Your task to perform on an android device: add a label to a message in the gmail app Image 0: 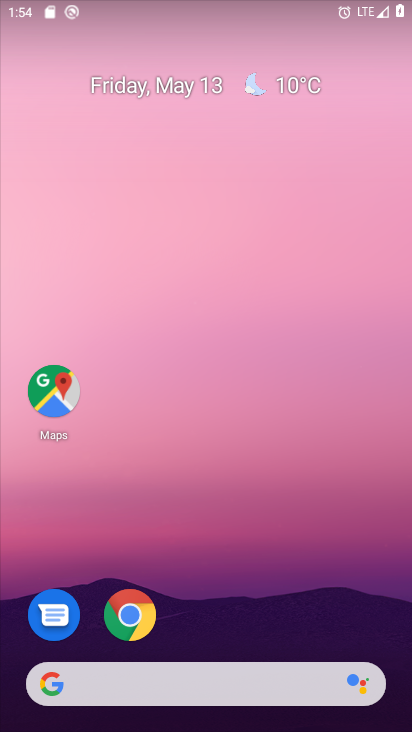
Step 0: drag from (222, 573) to (252, 85)
Your task to perform on an android device: add a label to a message in the gmail app Image 1: 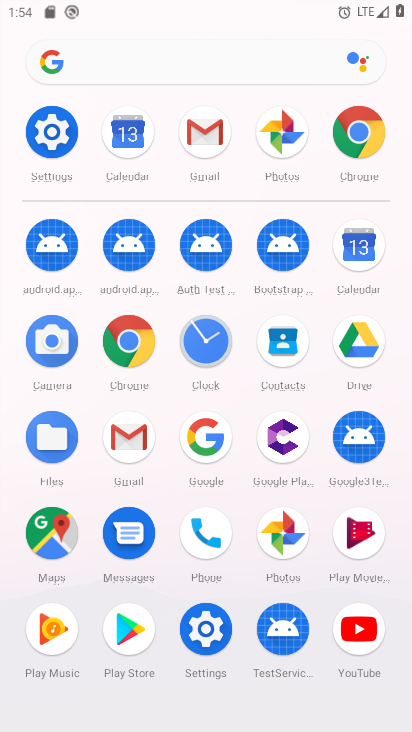
Step 1: click (214, 133)
Your task to perform on an android device: add a label to a message in the gmail app Image 2: 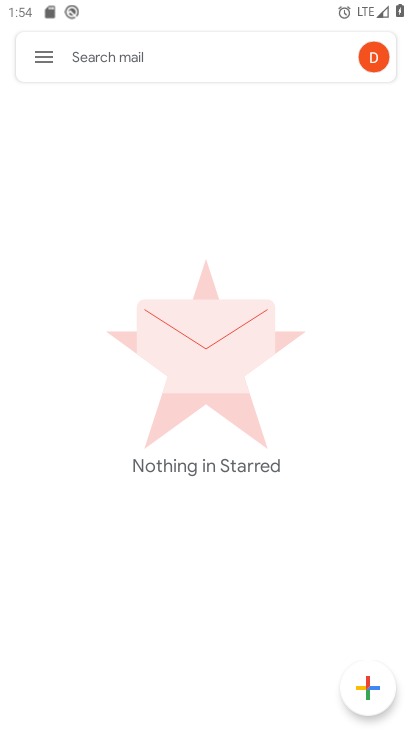
Step 2: click (41, 58)
Your task to perform on an android device: add a label to a message in the gmail app Image 3: 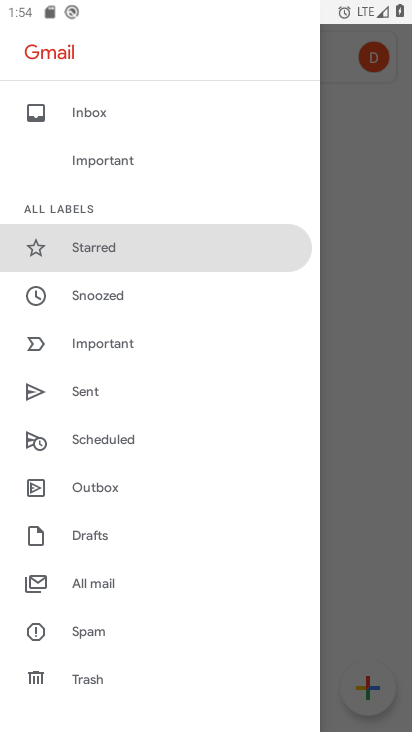
Step 3: click (89, 574)
Your task to perform on an android device: add a label to a message in the gmail app Image 4: 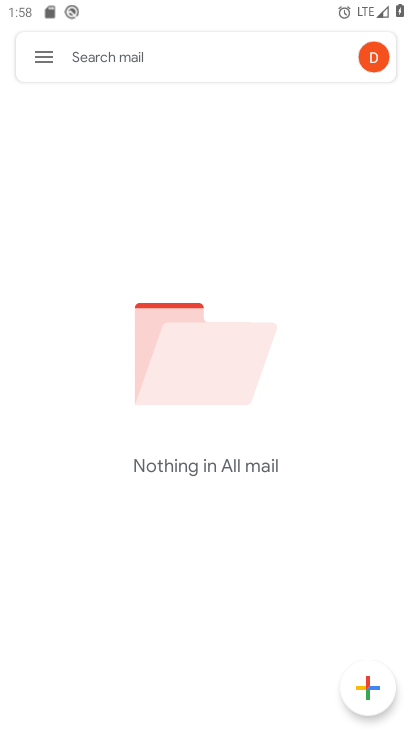
Step 4: task complete